Your task to perform on an android device: Search for hotels in New York Image 0: 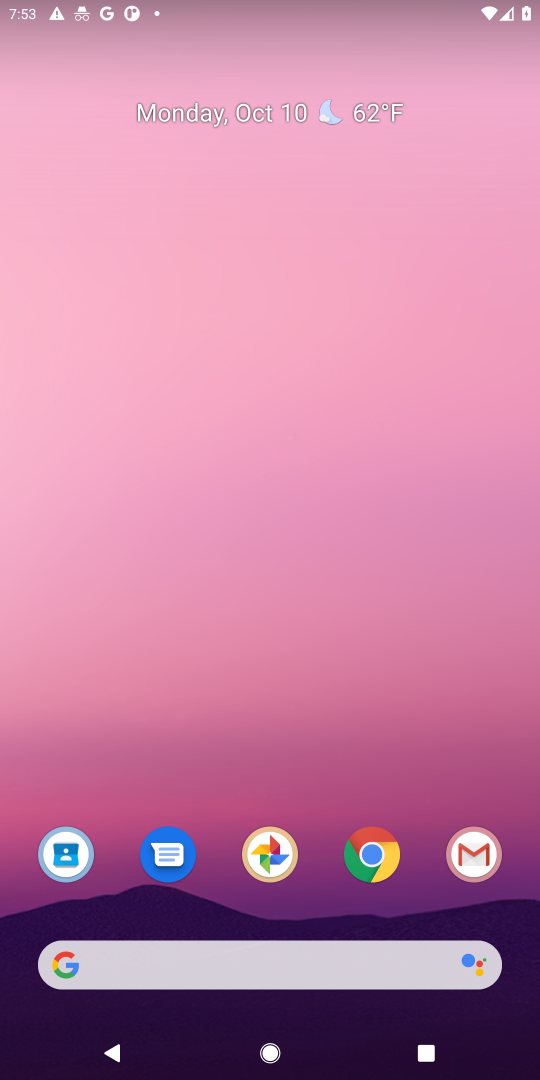
Step 0: click (378, 851)
Your task to perform on an android device: Search for hotels in New York Image 1: 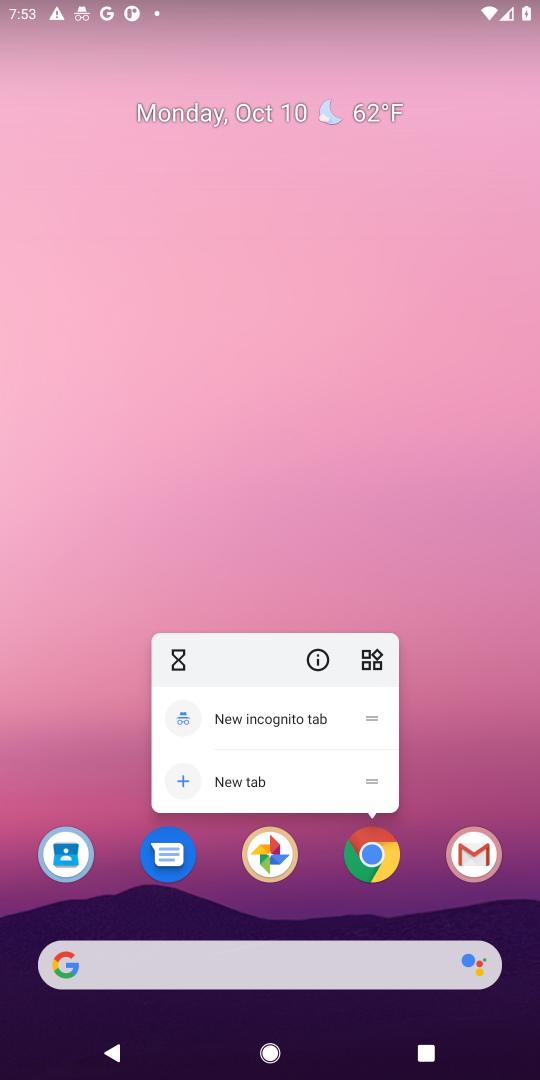
Step 1: click (372, 854)
Your task to perform on an android device: Search for hotels in New York Image 2: 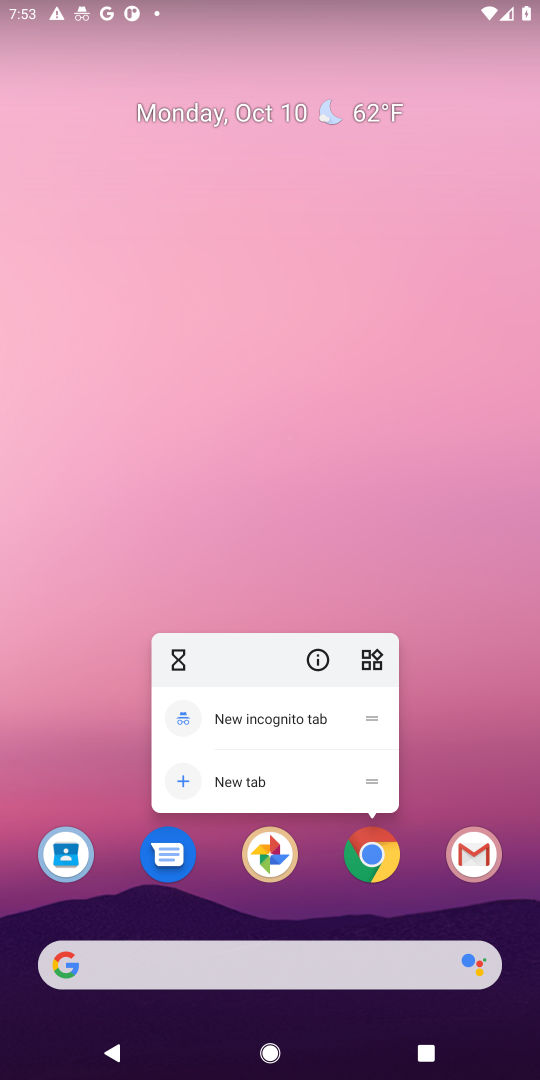
Step 2: click (371, 855)
Your task to perform on an android device: Search for hotels in New York Image 3: 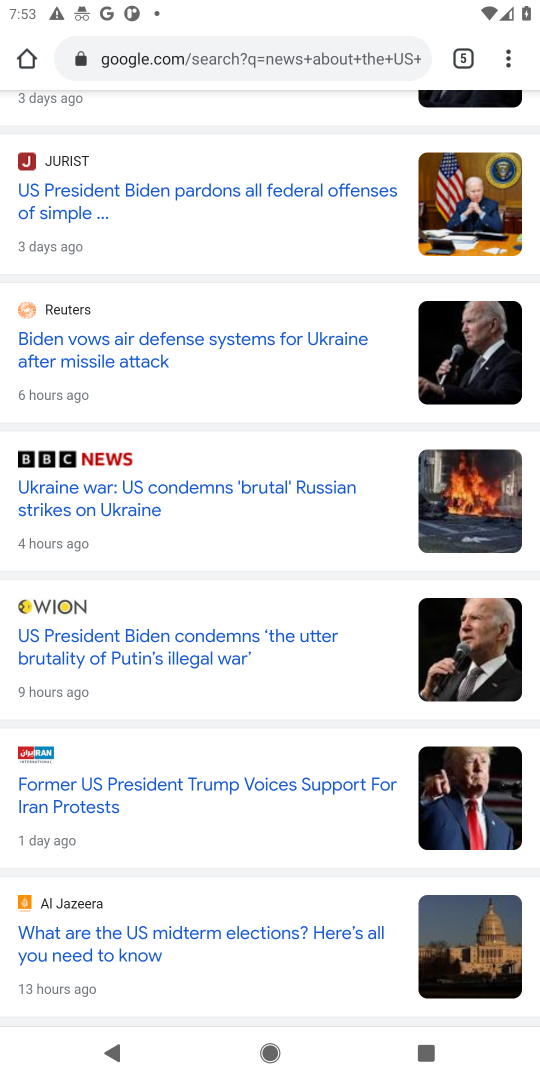
Step 3: click (185, 47)
Your task to perform on an android device: Search for hotels in New York Image 4: 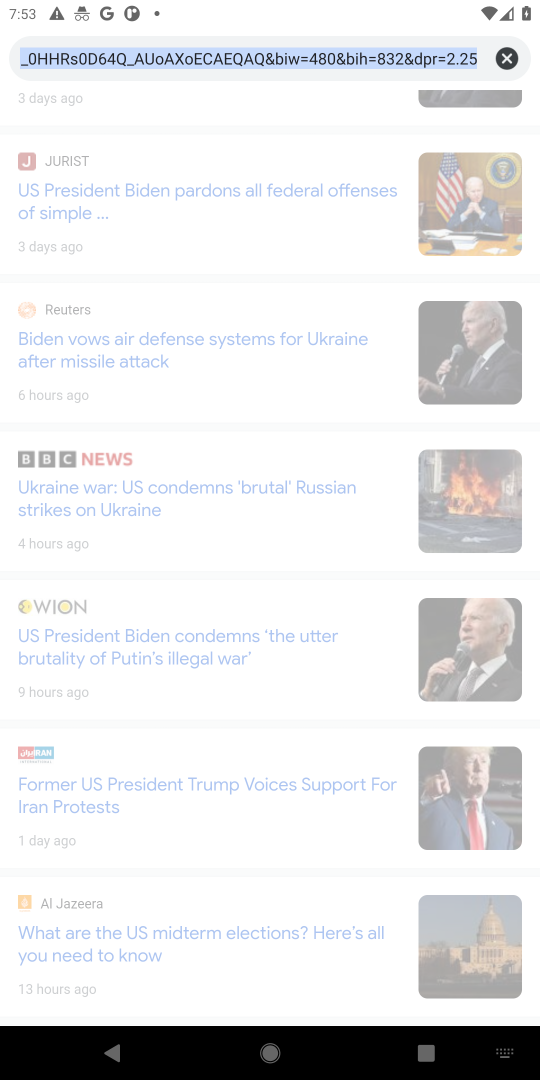
Step 4: click (507, 58)
Your task to perform on an android device: Search for hotels in New York Image 5: 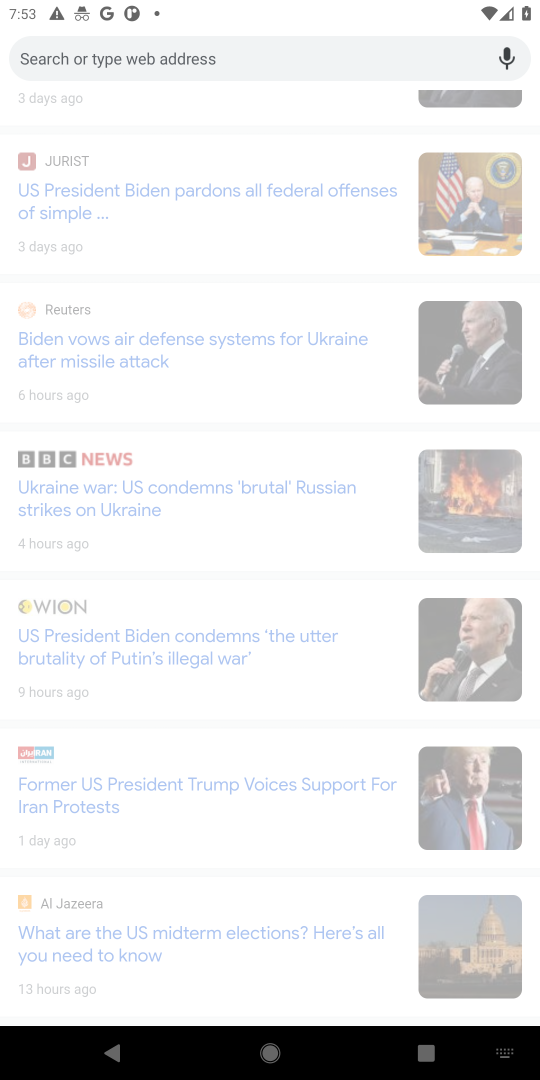
Step 5: type "hotels in New York"
Your task to perform on an android device: Search for hotels in New York Image 6: 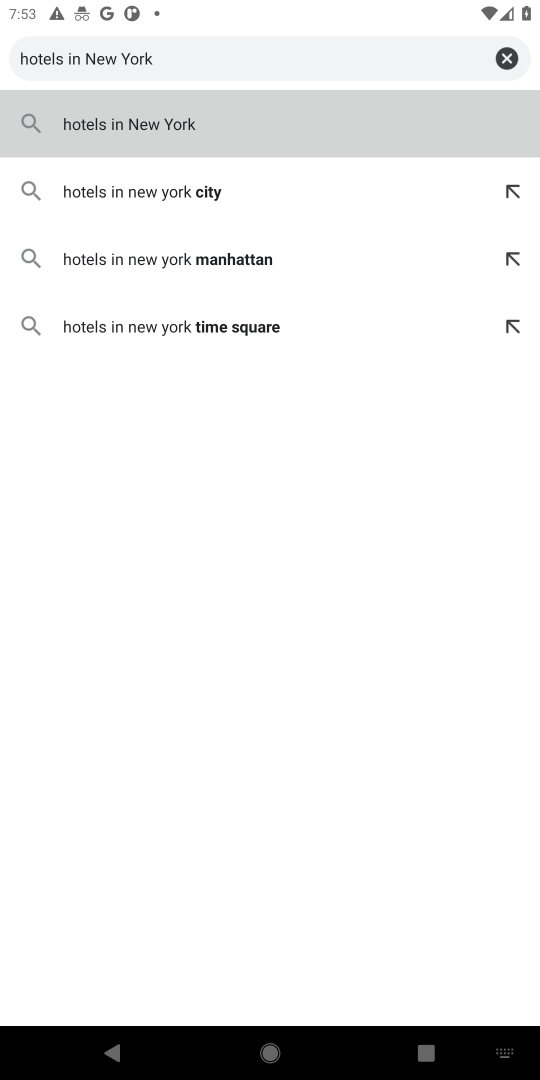
Step 6: click (129, 121)
Your task to perform on an android device: Search for hotels in New York Image 7: 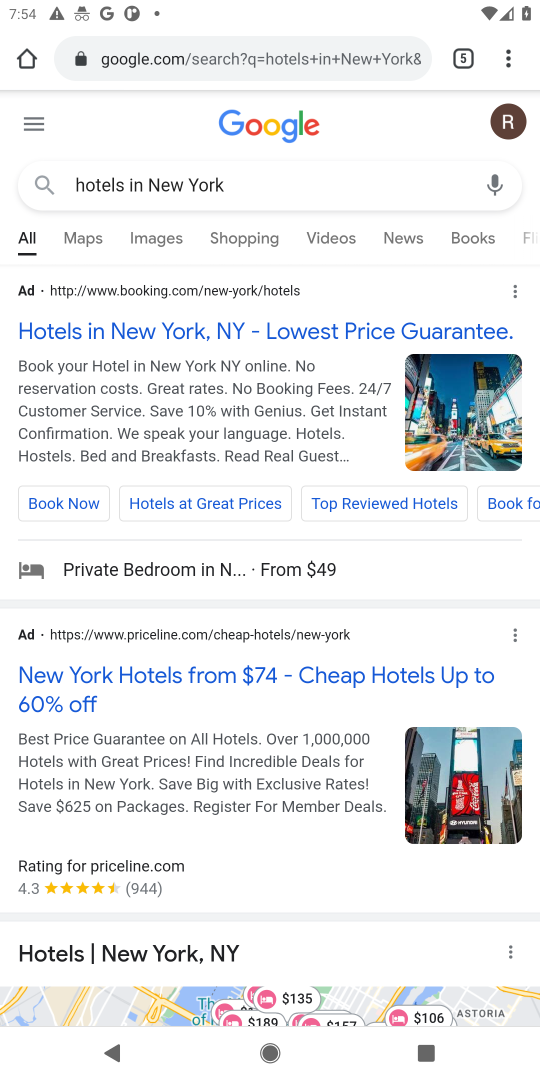
Step 7: drag from (210, 857) to (396, 330)
Your task to perform on an android device: Search for hotels in New York Image 8: 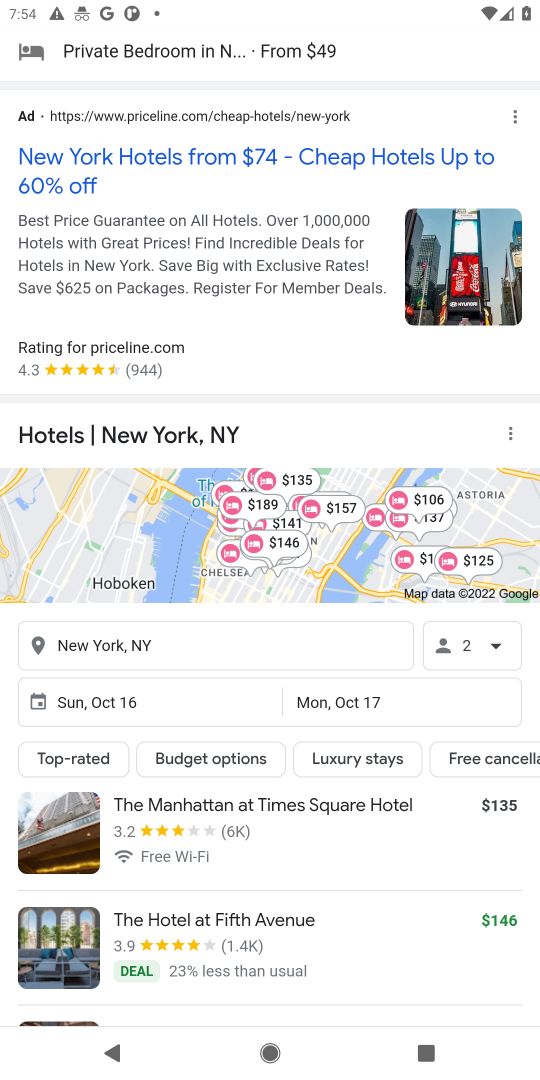
Step 8: drag from (324, 725) to (497, 224)
Your task to perform on an android device: Search for hotels in New York Image 9: 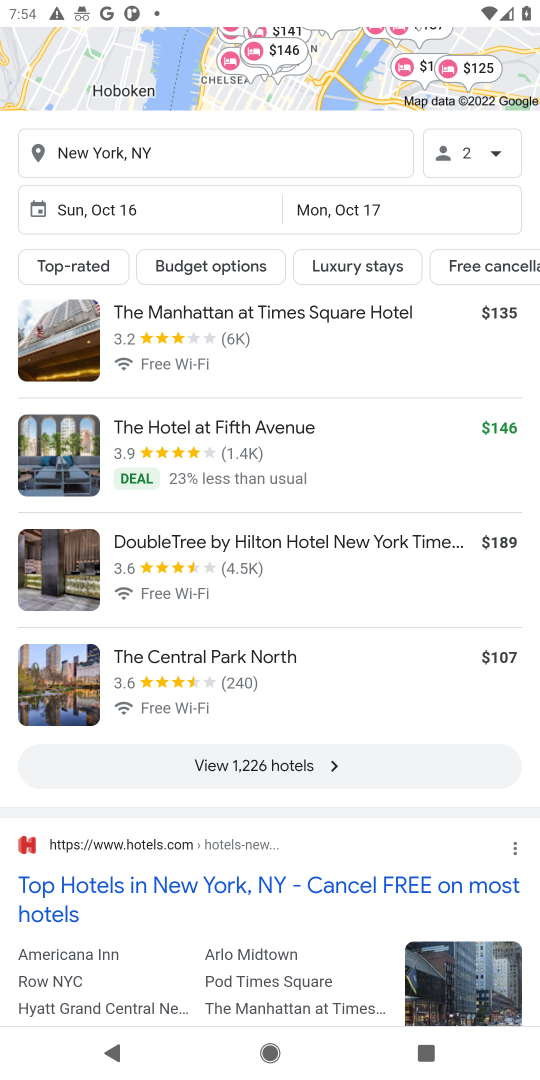
Step 9: click (294, 763)
Your task to perform on an android device: Search for hotels in New York Image 10: 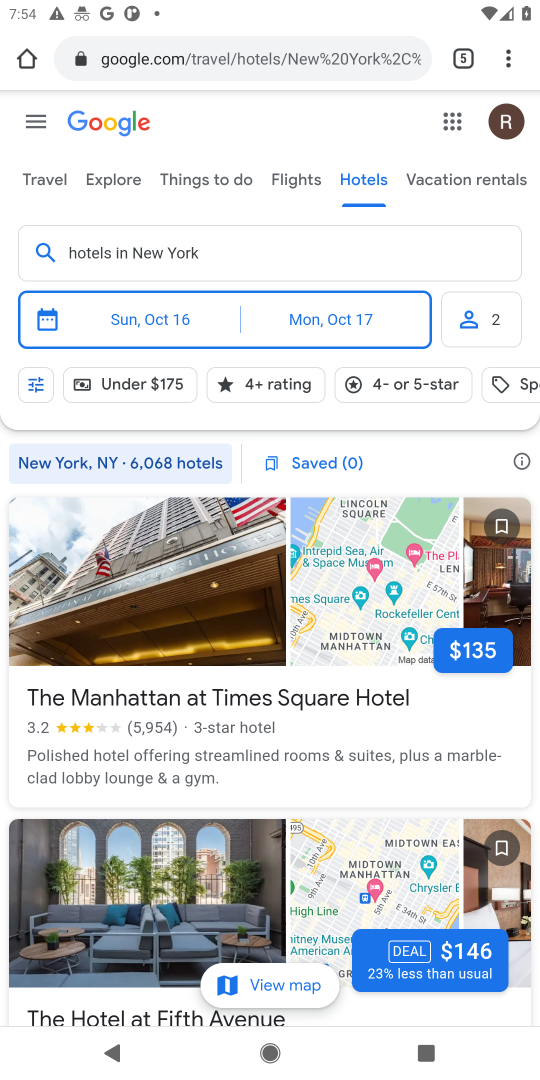
Step 10: task complete